Your task to perform on an android device: turn off data saver in the chrome app Image 0: 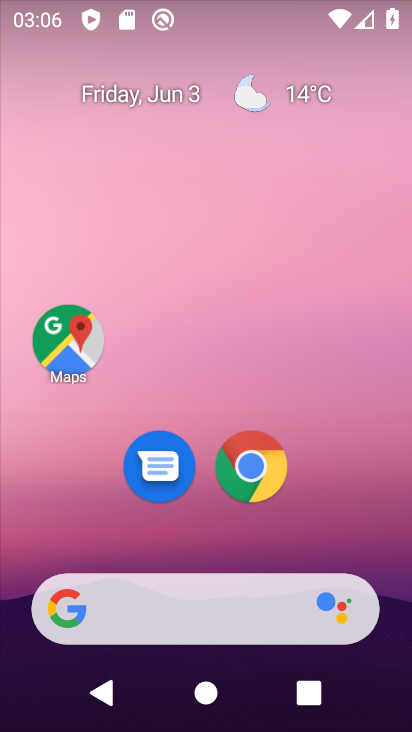
Step 0: press home button
Your task to perform on an android device: turn off data saver in the chrome app Image 1: 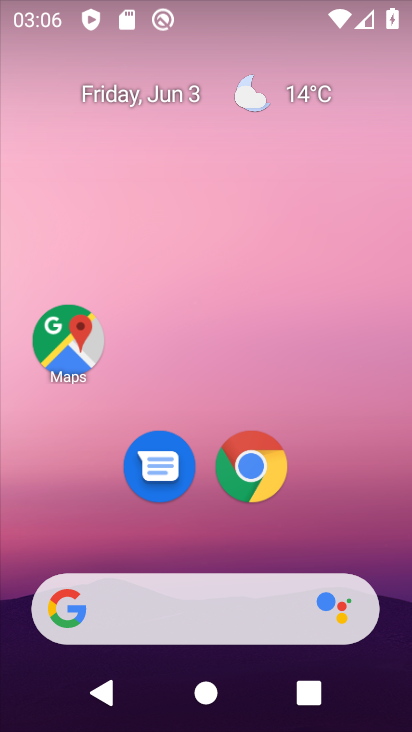
Step 1: click (246, 459)
Your task to perform on an android device: turn off data saver in the chrome app Image 2: 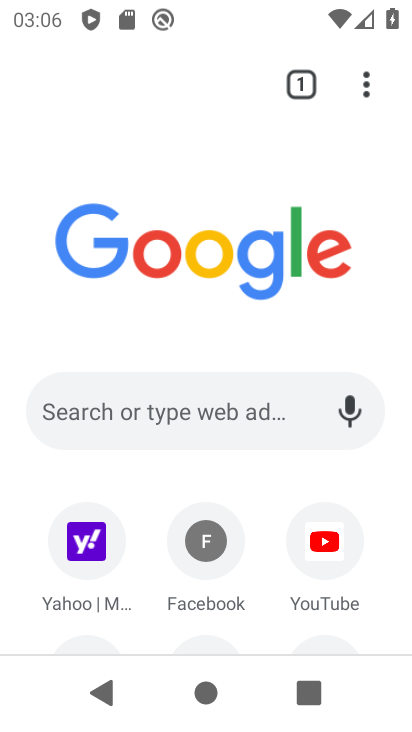
Step 2: click (364, 88)
Your task to perform on an android device: turn off data saver in the chrome app Image 3: 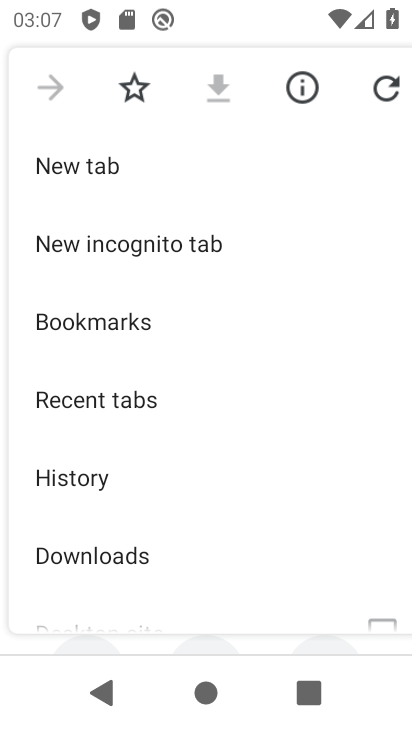
Step 3: drag from (205, 558) to (274, 118)
Your task to perform on an android device: turn off data saver in the chrome app Image 4: 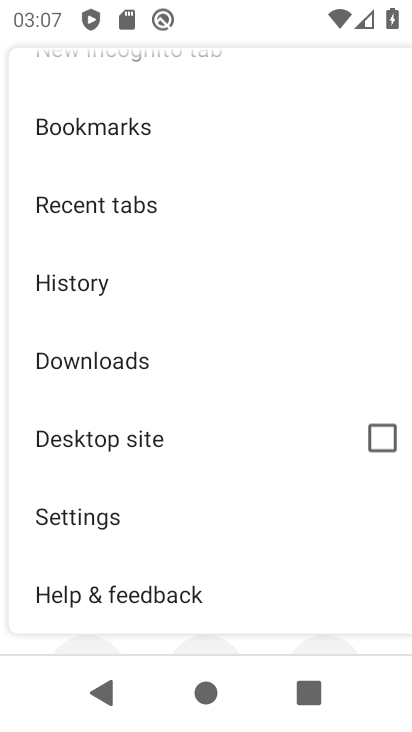
Step 4: click (143, 519)
Your task to perform on an android device: turn off data saver in the chrome app Image 5: 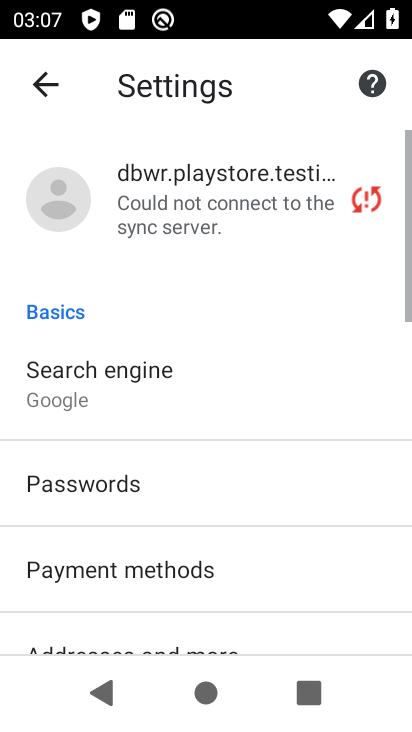
Step 5: drag from (249, 620) to (265, 143)
Your task to perform on an android device: turn off data saver in the chrome app Image 6: 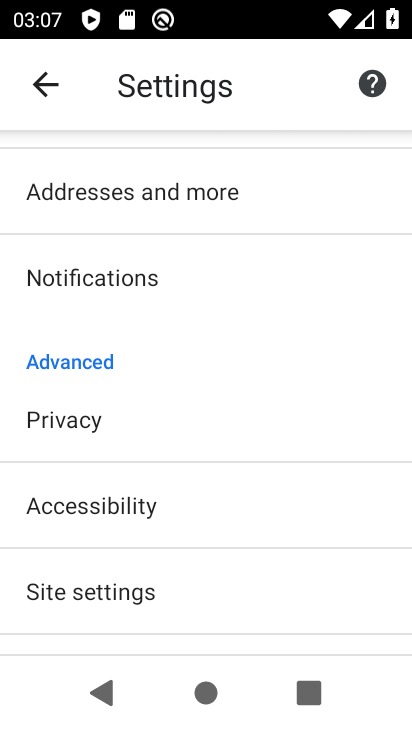
Step 6: drag from (213, 600) to (240, 248)
Your task to perform on an android device: turn off data saver in the chrome app Image 7: 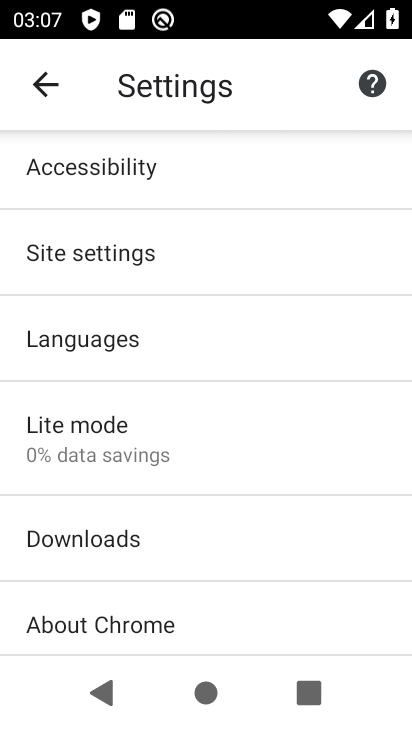
Step 7: click (184, 436)
Your task to perform on an android device: turn off data saver in the chrome app Image 8: 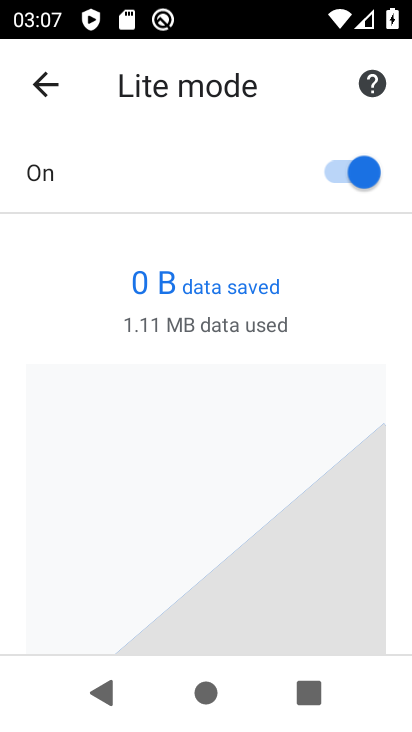
Step 8: click (339, 170)
Your task to perform on an android device: turn off data saver in the chrome app Image 9: 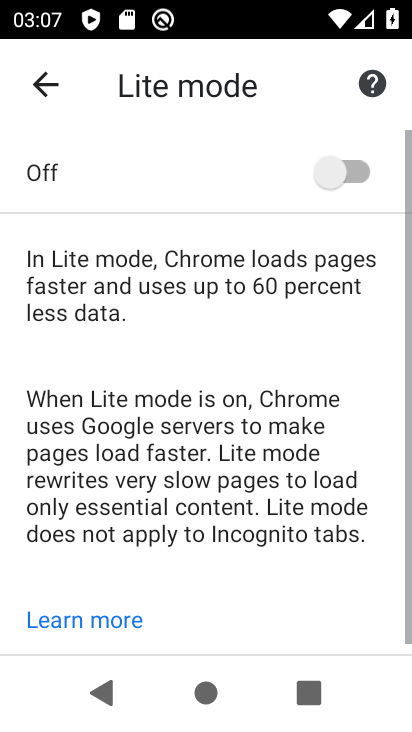
Step 9: task complete